Your task to perform on an android device: turn notification dots on Image 0: 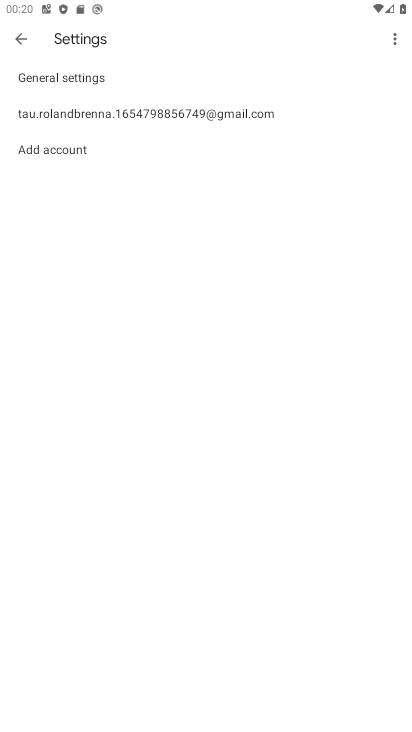
Step 0: click (16, 30)
Your task to perform on an android device: turn notification dots on Image 1: 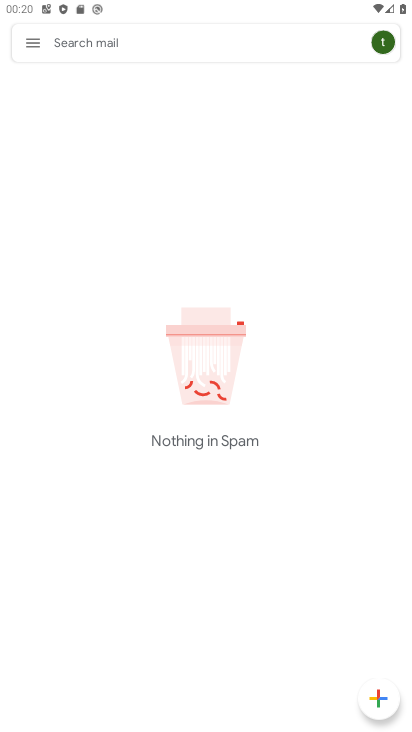
Step 1: press back button
Your task to perform on an android device: turn notification dots on Image 2: 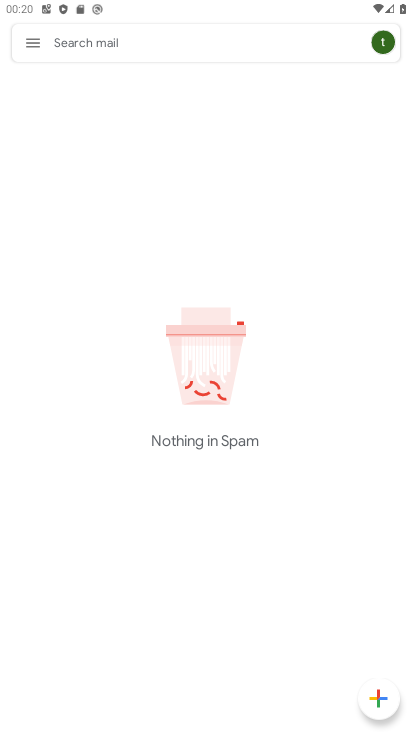
Step 2: press back button
Your task to perform on an android device: turn notification dots on Image 3: 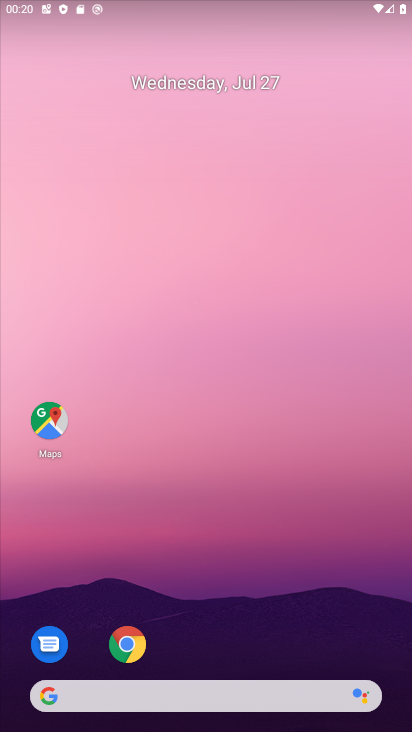
Step 3: drag from (228, 624) to (207, 33)
Your task to perform on an android device: turn notification dots on Image 4: 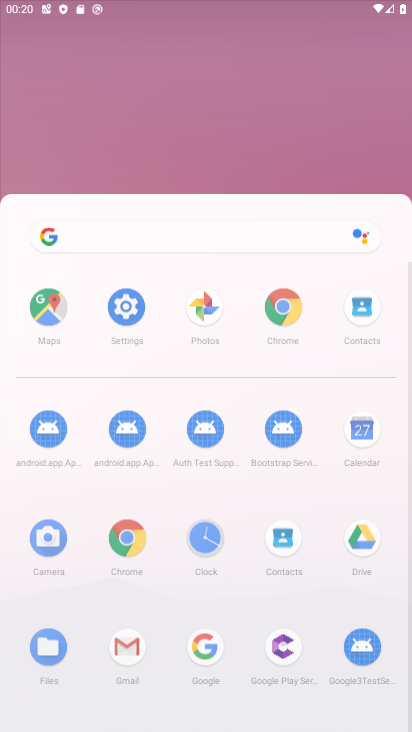
Step 4: drag from (238, 445) to (257, 109)
Your task to perform on an android device: turn notification dots on Image 5: 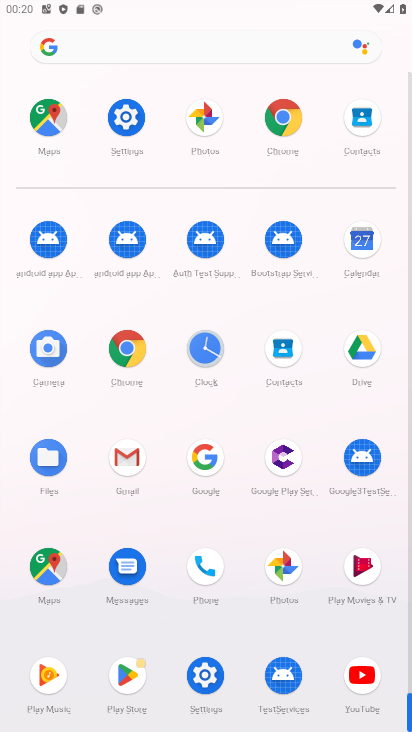
Step 5: drag from (248, 525) to (236, 75)
Your task to perform on an android device: turn notification dots on Image 6: 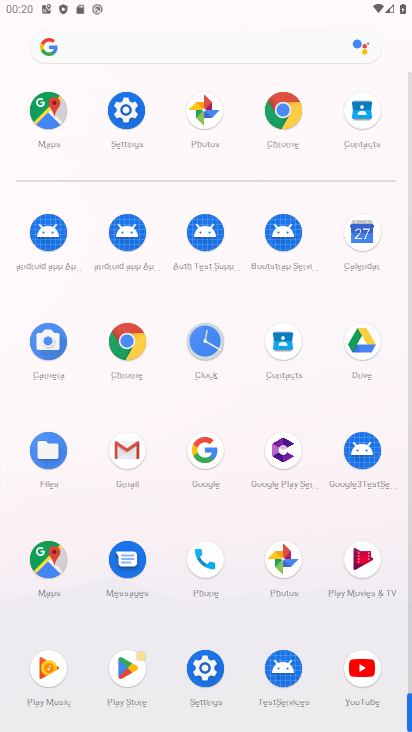
Step 6: click (119, 111)
Your task to perform on an android device: turn notification dots on Image 7: 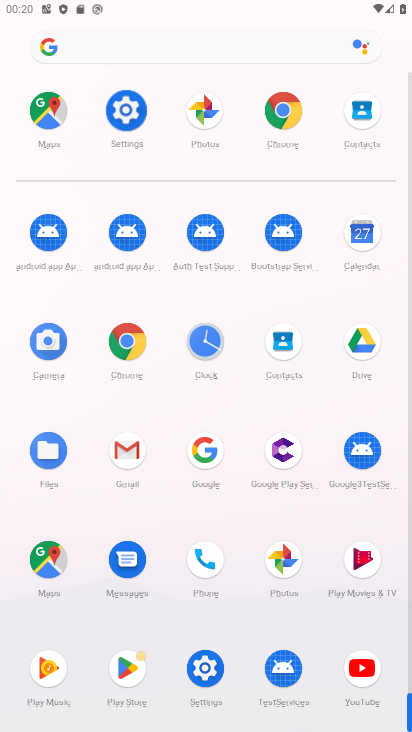
Step 7: click (124, 115)
Your task to perform on an android device: turn notification dots on Image 8: 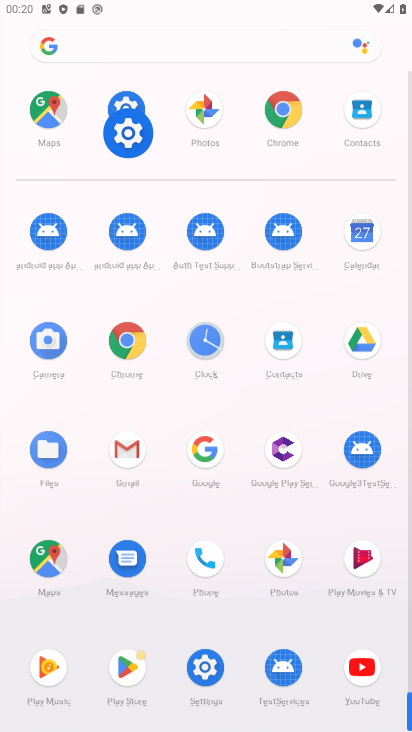
Step 8: click (125, 116)
Your task to perform on an android device: turn notification dots on Image 9: 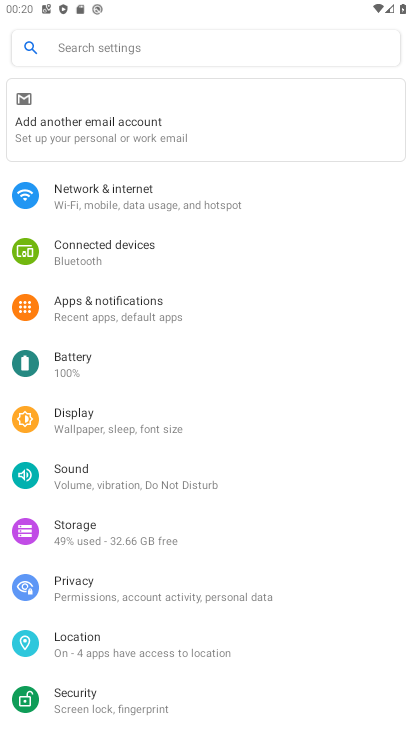
Step 9: click (119, 319)
Your task to perform on an android device: turn notification dots on Image 10: 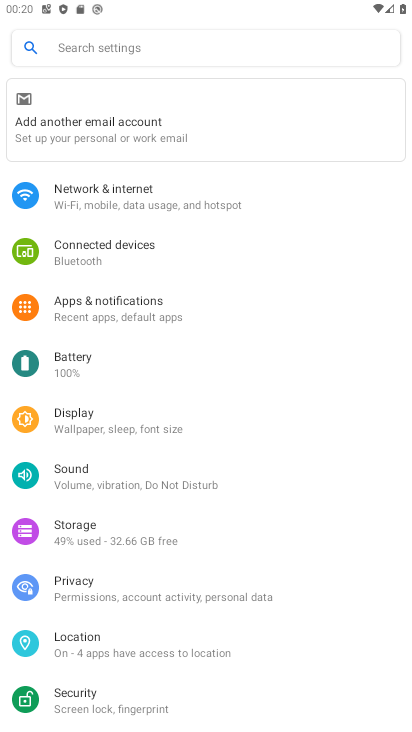
Step 10: click (119, 319)
Your task to perform on an android device: turn notification dots on Image 11: 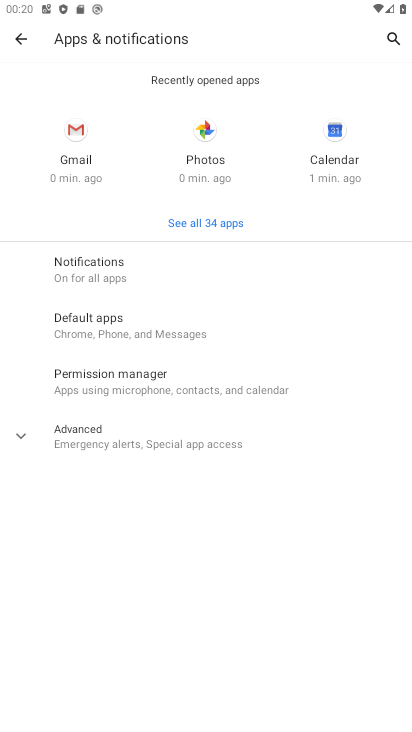
Step 11: click (94, 270)
Your task to perform on an android device: turn notification dots on Image 12: 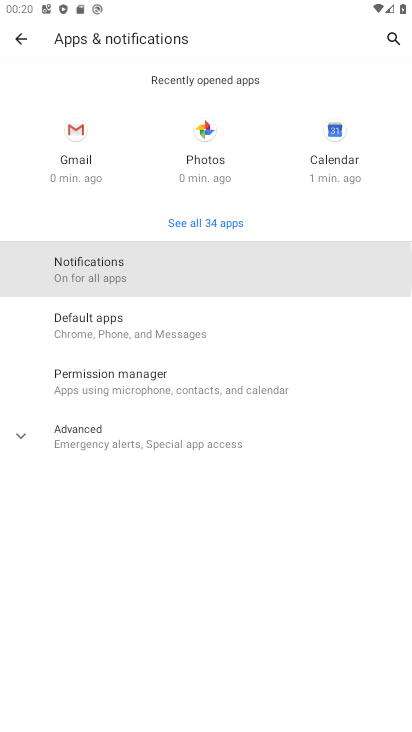
Step 12: click (94, 270)
Your task to perform on an android device: turn notification dots on Image 13: 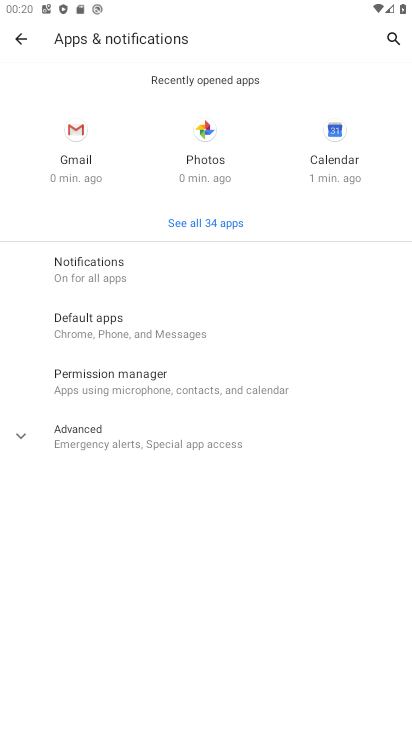
Step 13: click (94, 270)
Your task to perform on an android device: turn notification dots on Image 14: 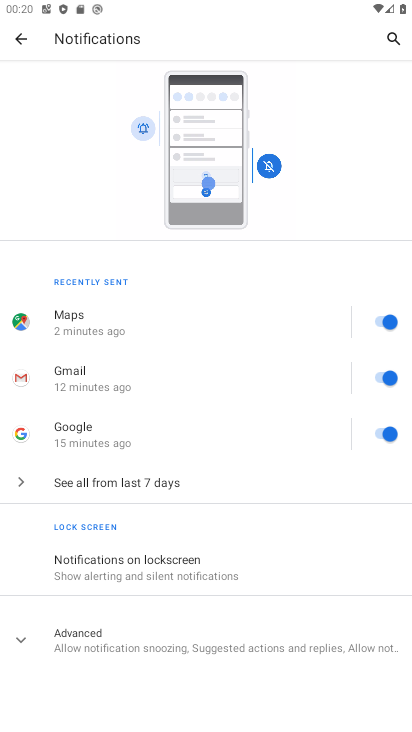
Step 14: click (64, 633)
Your task to perform on an android device: turn notification dots on Image 15: 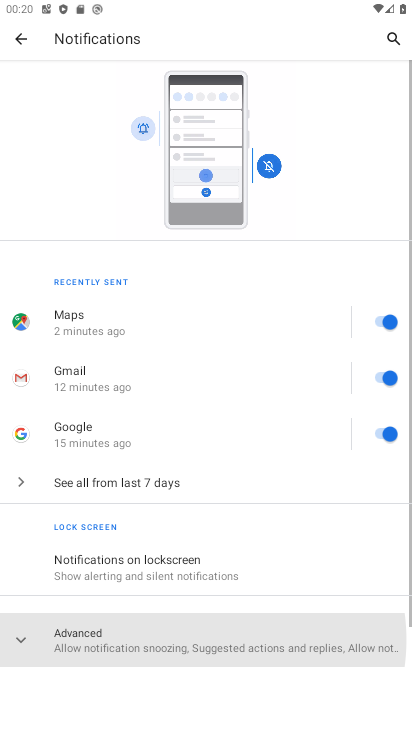
Step 15: click (80, 613)
Your task to perform on an android device: turn notification dots on Image 16: 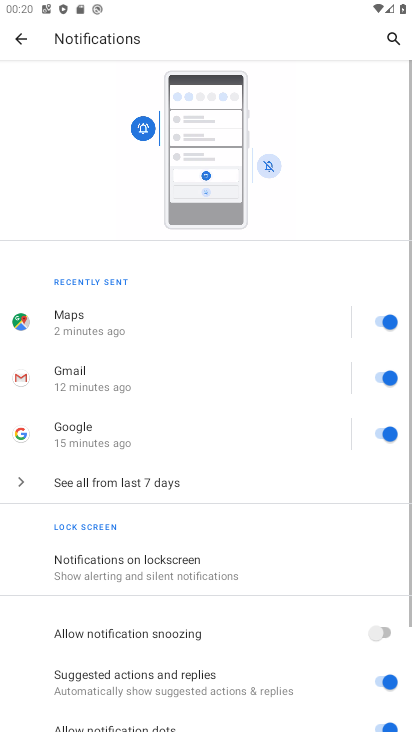
Step 16: click (83, 614)
Your task to perform on an android device: turn notification dots on Image 17: 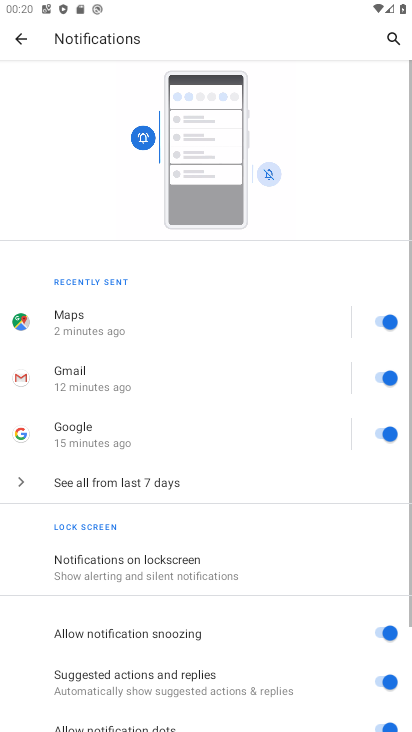
Step 17: drag from (276, 611) to (281, 265)
Your task to perform on an android device: turn notification dots on Image 18: 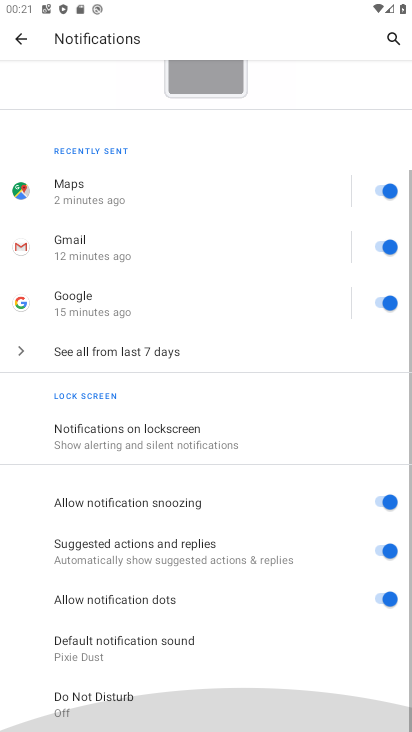
Step 18: drag from (292, 582) to (342, 232)
Your task to perform on an android device: turn notification dots on Image 19: 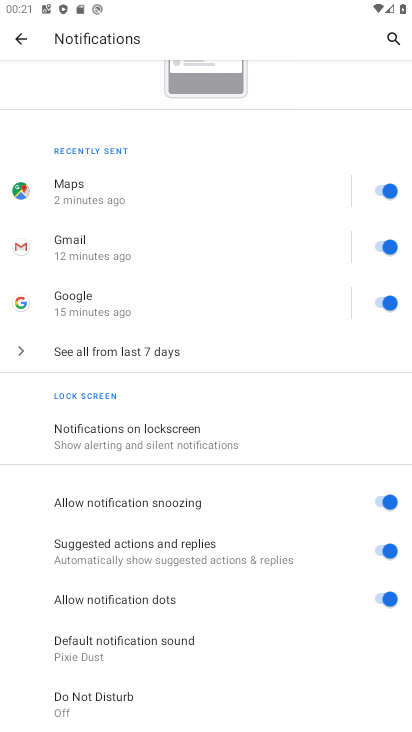
Step 19: click (404, 595)
Your task to perform on an android device: turn notification dots on Image 20: 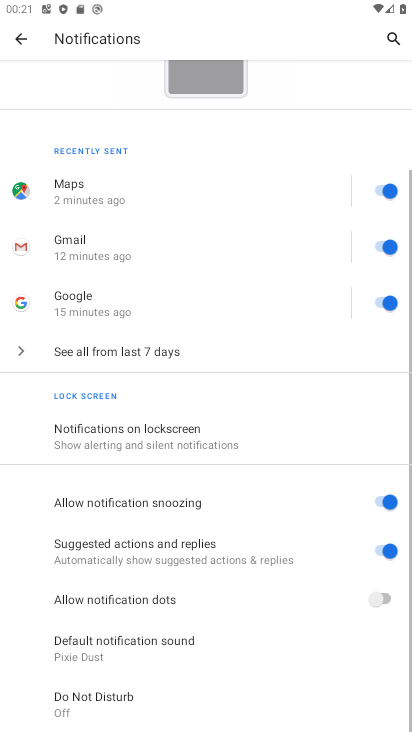
Step 20: click (375, 597)
Your task to perform on an android device: turn notification dots on Image 21: 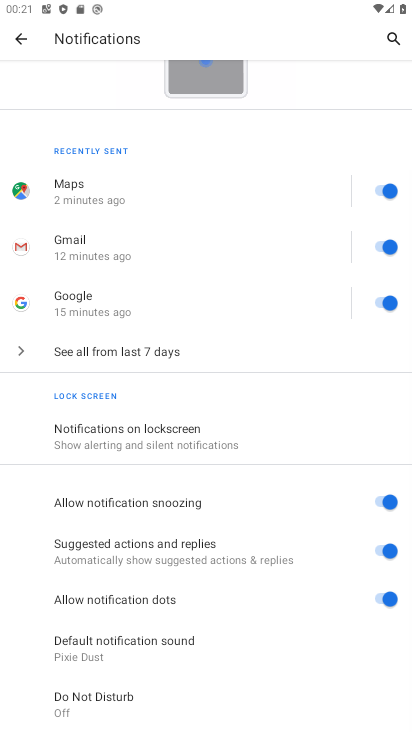
Step 21: task complete